Your task to perform on an android device: Search for "dell xps" on ebay.com, select the first entry, and add it to the cart. Image 0: 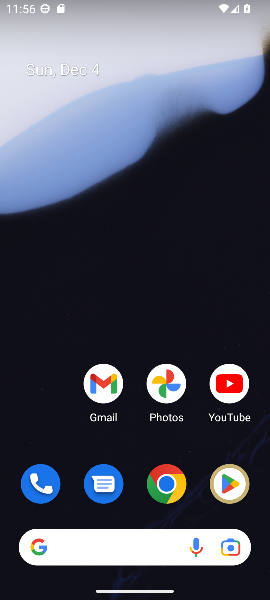
Step 0: click (164, 491)
Your task to perform on an android device: Search for "dell xps" on ebay.com, select the first entry, and add it to the cart. Image 1: 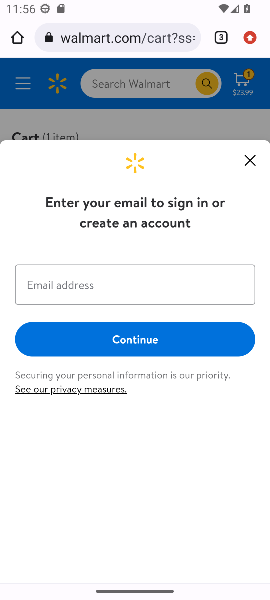
Step 1: click (100, 39)
Your task to perform on an android device: Search for "dell xps" on ebay.com, select the first entry, and add it to the cart. Image 2: 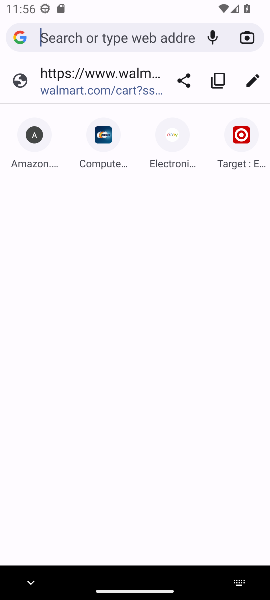
Step 2: type "ebay.com"
Your task to perform on an android device: Search for "dell xps" on ebay.com, select the first entry, and add it to the cart. Image 3: 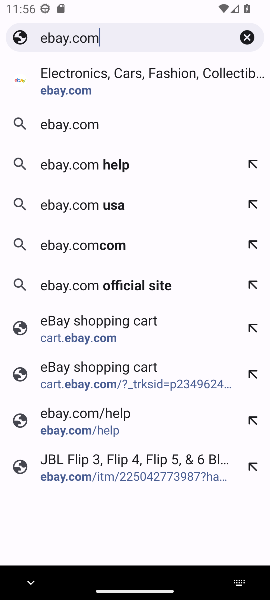
Step 3: click (38, 87)
Your task to perform on an android device: Search for "dell xps" on ebay.com, select the first entry, and add it to the cart. Image 4: 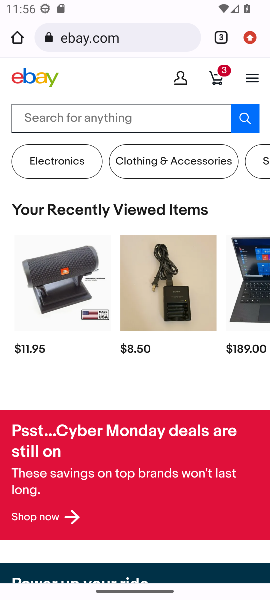
Step 4: click (76, 133)
Your task to perform on an android device: Search for "dell xps" on ebay.com, select the first entry, and add it to the cart. Image 5: 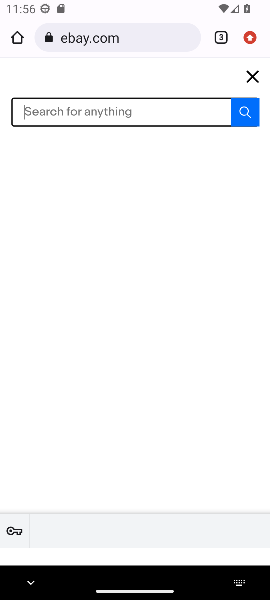
Step 5: type "dell xps"
Your task to perform on an android device: Search for "dell xps" on ebay.com, select the first entry, and add it to the cart. Image 6: 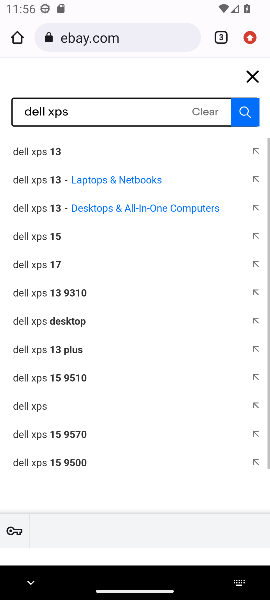
Step 6: click (33, 406)
Your task to perform on an android device: Search for "dell xps" on ebay.com, select the first entry, and add it to the cart. Image 7: 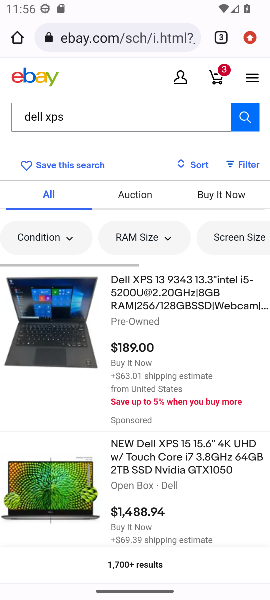
Step 7: click (136, 312)
Your task to perform on an android device: Search for "dell xps" on ebay.com, select the first entry, and add it to the cart. Image 8: 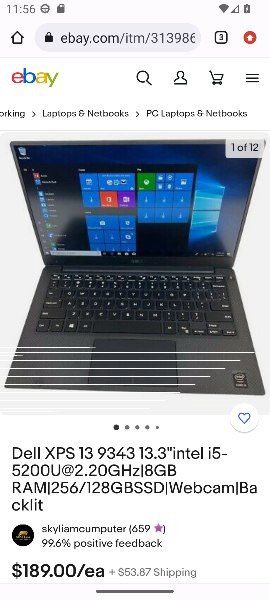
Step 8: task complete